Your task to perform on an android device: Open battery settings Image 0: 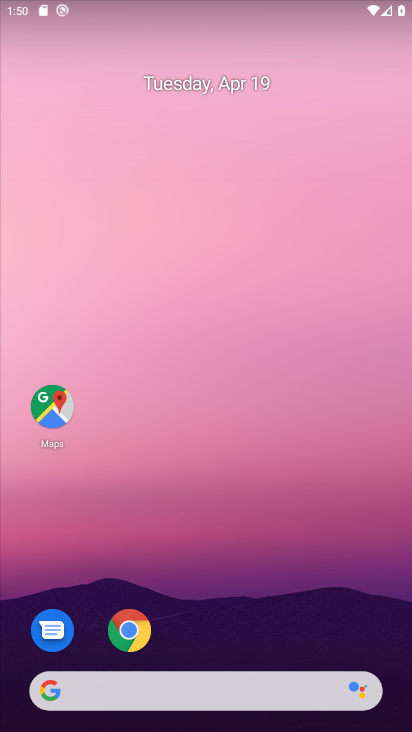
Step 0: drag from (229, 650) to (247, 59)
Your task to perform on an android device: Open battery settings Image 1: 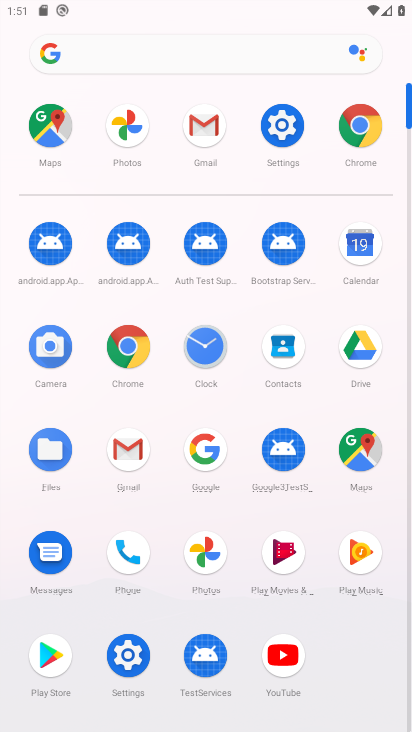
Step 1: click (280, 112)
Your task to perform on an android device: Open battery settings Image 2: 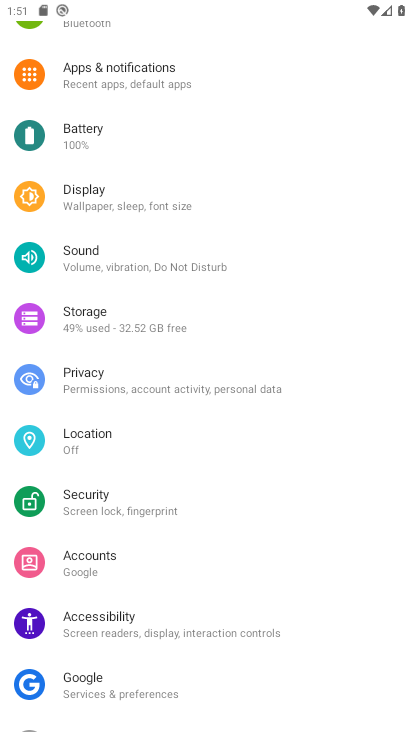
Step 2: click (99, 142)
Your task to perform on an android device: Open battery settings Image 3: 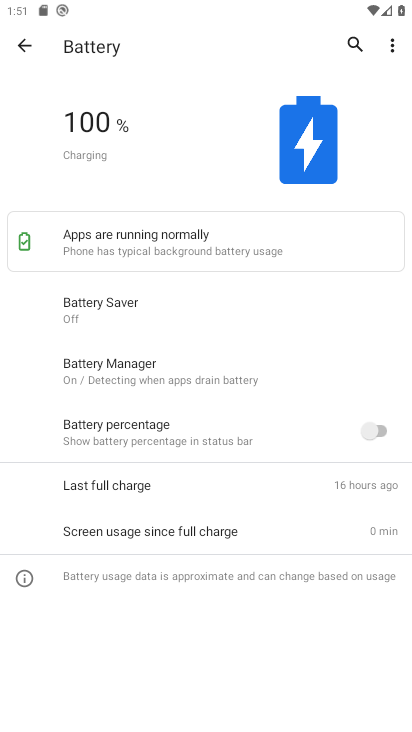
Step 3: task complete